Your task to perform on an android device: Is it going to rain this weekend? Image 0: 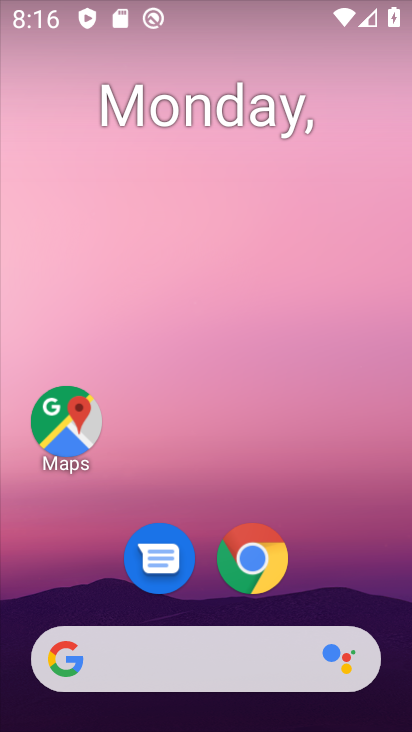
Step 0: click (260, 564)
Your task to perform on an android device: Is it going to rain this weekend? Image 1: 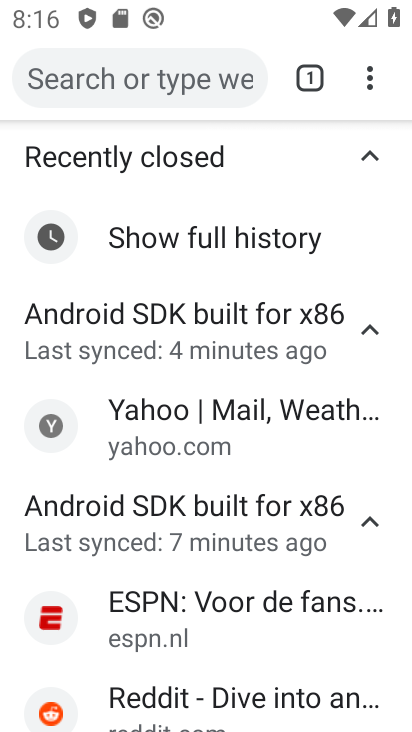
Step 1: click (212, 82)
Your task to perform on an android device: Is it going to rain this weekend? Image 2: 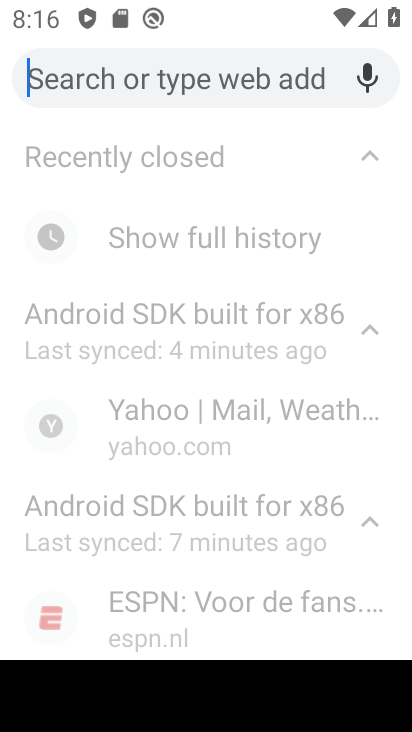
Step 2: type "weather"
Your task to perform on an android device: Is it going to rain this weekend? Image 3: 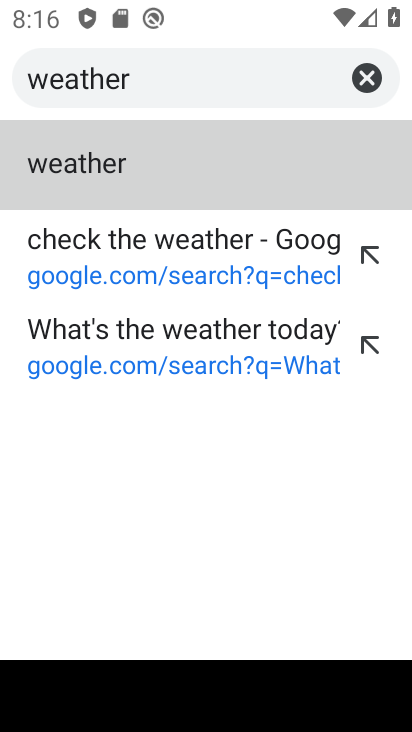
Step 3: click (86, 158)
Your task to perform on an android device: Is it going to rain this weekend? Image 4: 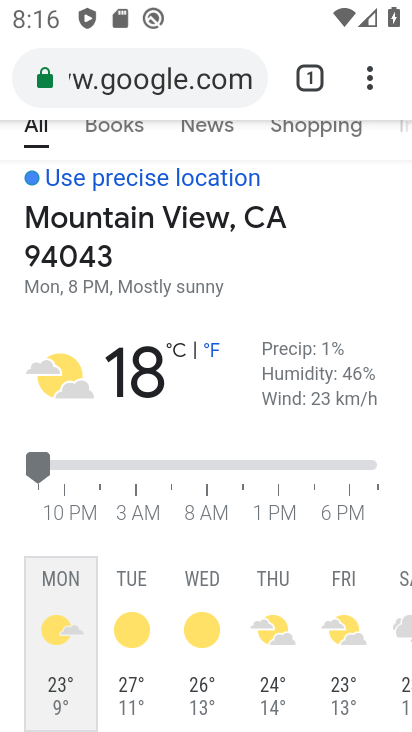
Step 4: task complete